Your task to perform on an android device: turn on sleep mode Image 0: 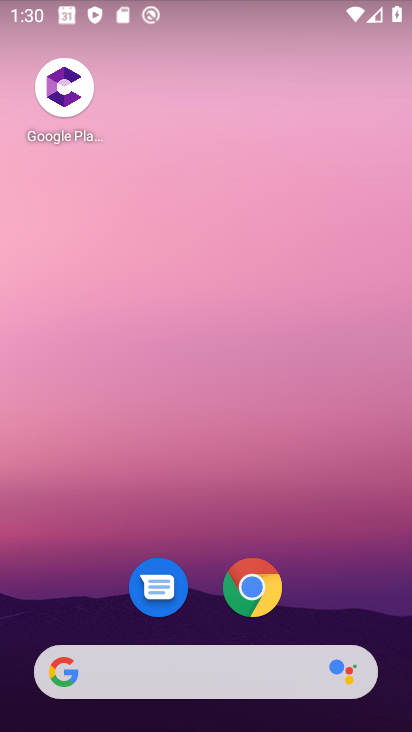
Step 0: drag from (138, 523) to (246, 167)
Your task to perform on an android device: turn on sleep mode Image 1: 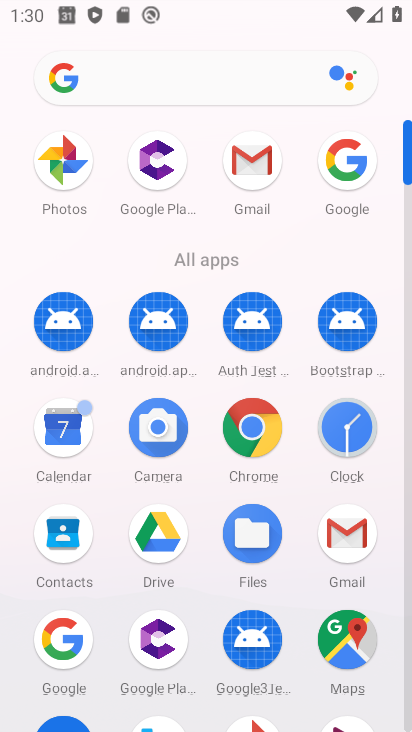
Step 1: drag from (175, 632) to (249, 304)
Your task to perform on an android device: turn on sleep mode Image 2: 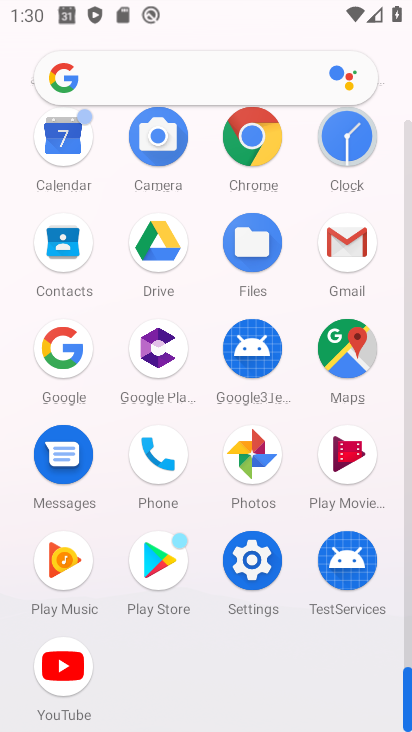
Step 2: click (245, 644)
Your task to perform on an android device: turn on sleep mode Image 3: 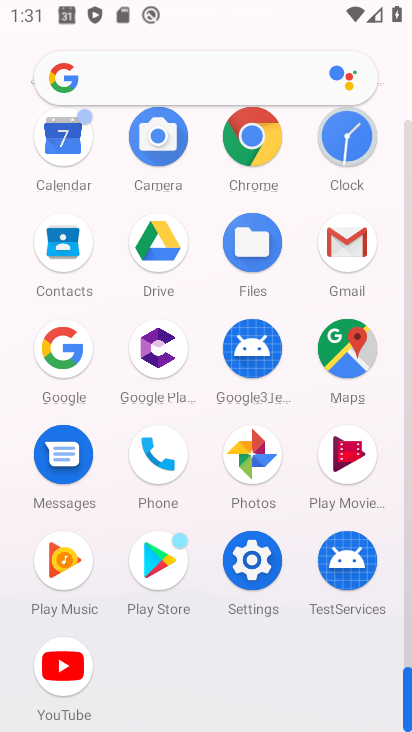
Step 3: click (244, 563)
Your task to perform on an android device: turn on sleep mode Image 4: 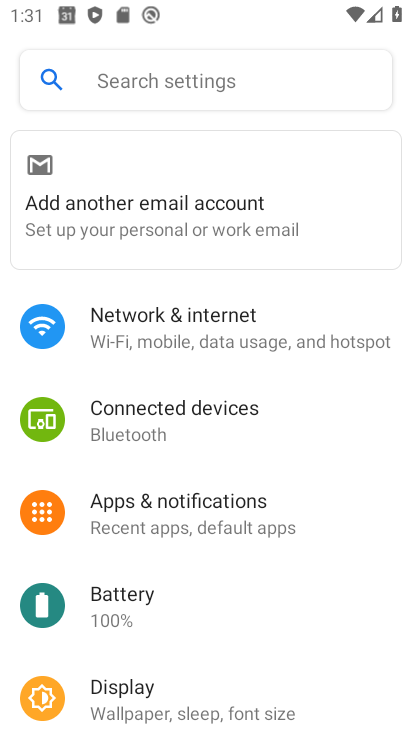
Step 4: click (152, 694)
Your task to perform on an android device: turn on sleep mode Image 5: 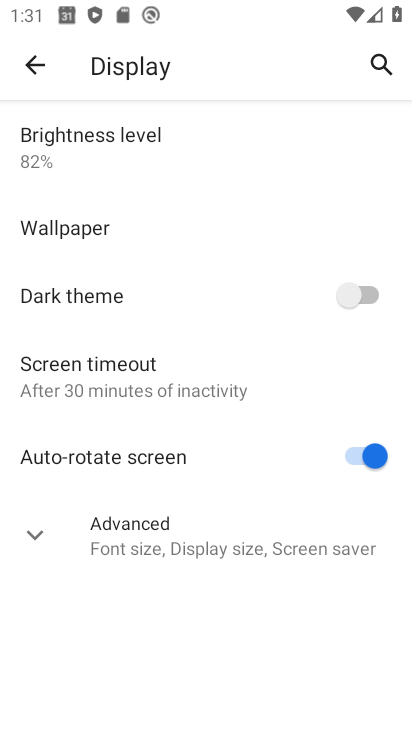
Step 5: click (185, 524)
Your task to perform on an android device: turn on sleep mode Image 6: 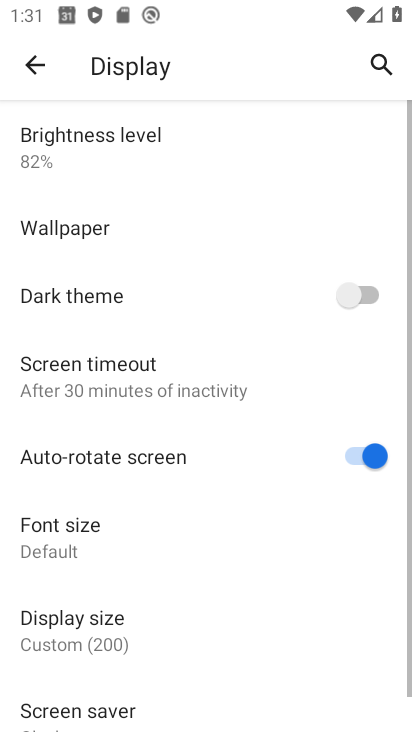
Step 6: task complete